Your task to perform on an android device: Clear the cart on ebay.com. Search for lg ultragear on ebay.com, select the first entry, and add it to the cart. Image 0: 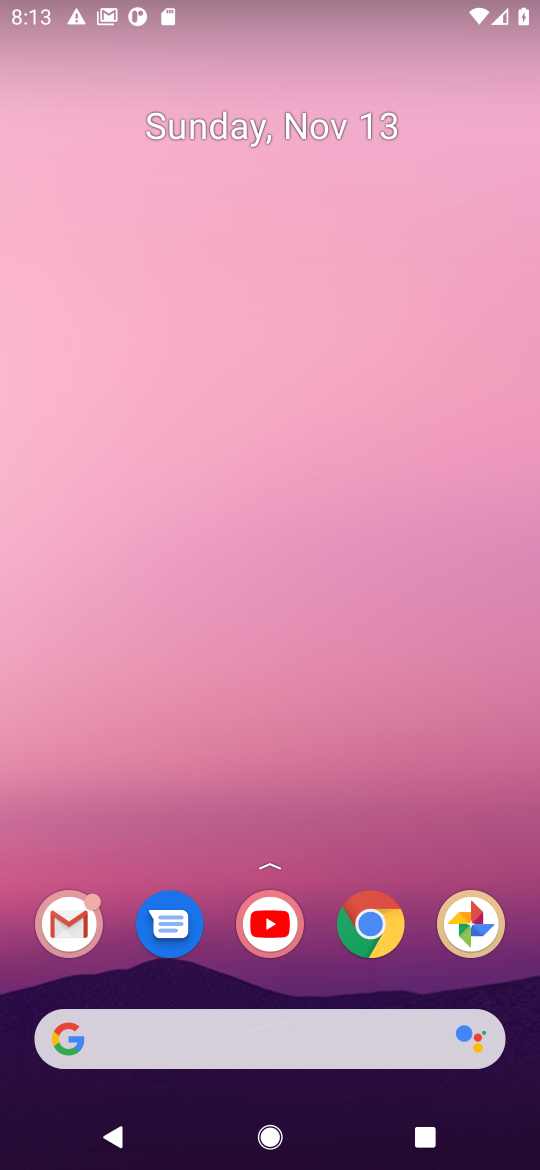
Step 0: click (369, 933)
Your task to perform on an android device: Clear the cart on ebay.com. Search for lg ultragear on ebay.com, select the first entry, and add it to the cart. Image 1: 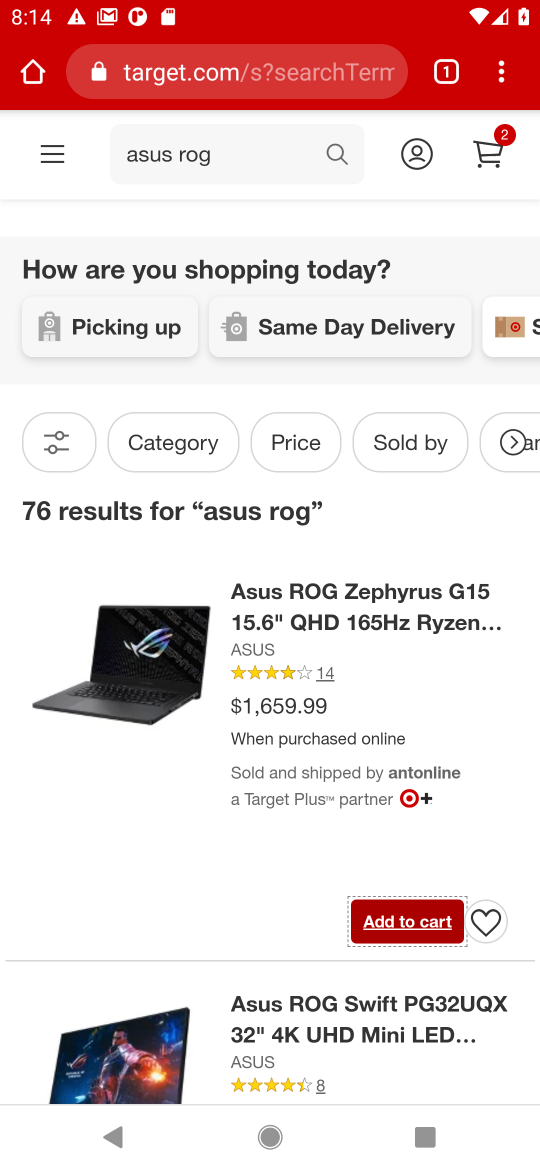
Step 1: click (214, 73)
Your task to perform on an android device: Clear the cart on ebay.com. Search for lg ultragear on ebay.com, select the first entry, and add it to the cart. Image 2: 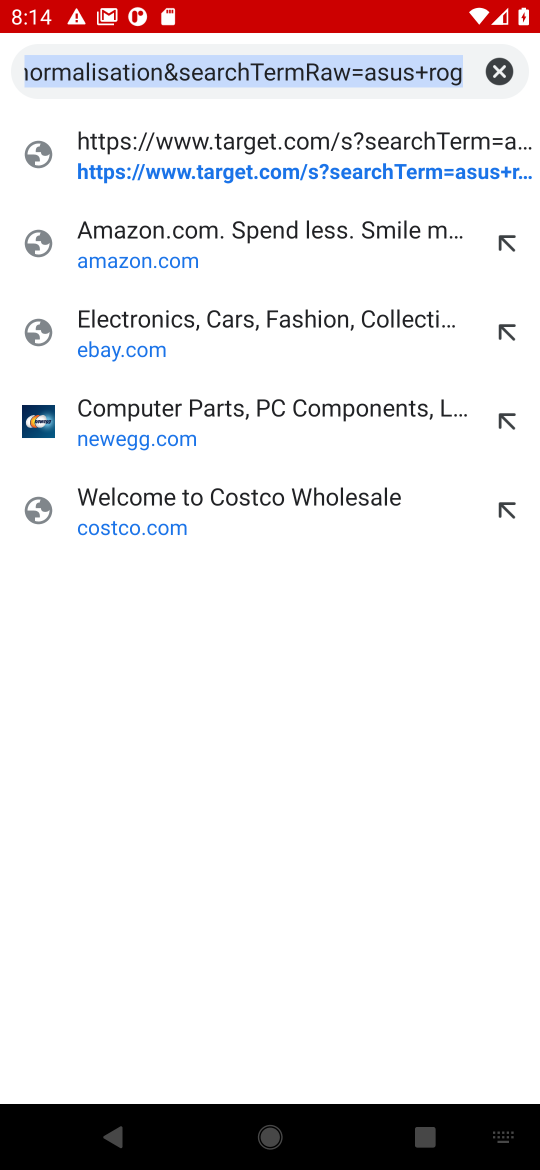
Step 2: click (99, 322)
Your task to perform on an android device: Clear the cart on ebay.com. Search for lg ultragear on ebay.com, select the first entry, and add it to the cart. Image 3: 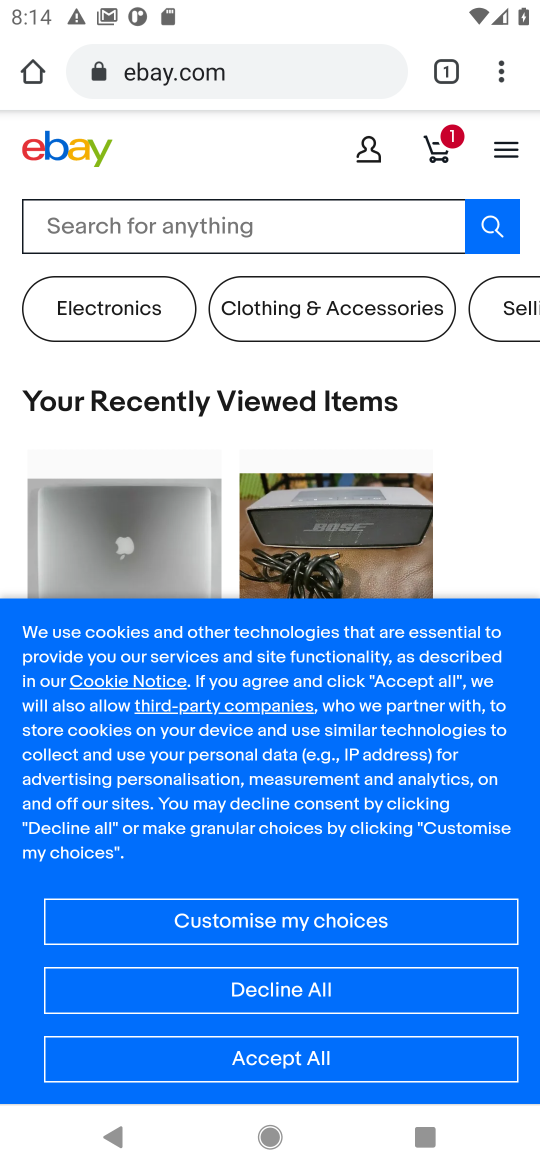
Step 3: click (438, 149)
Your task to perform on an android device: Clear the cart on ebay.com. Search for lg ultragear on ebay.com, select the first entry, and add it to the cart. Image 4: 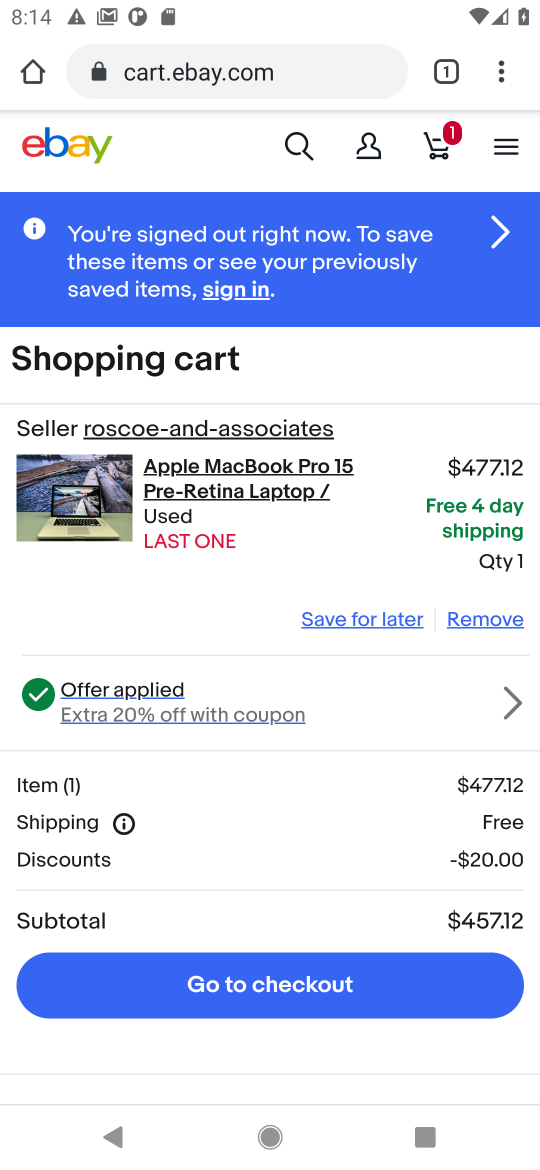
Step 4: click (477, 622)
Your task to perform on an android device: Clear the cart on ebay.com. Search for lg ultragear on ebay.com, select the first entry, and add it to the cart. Image 5: 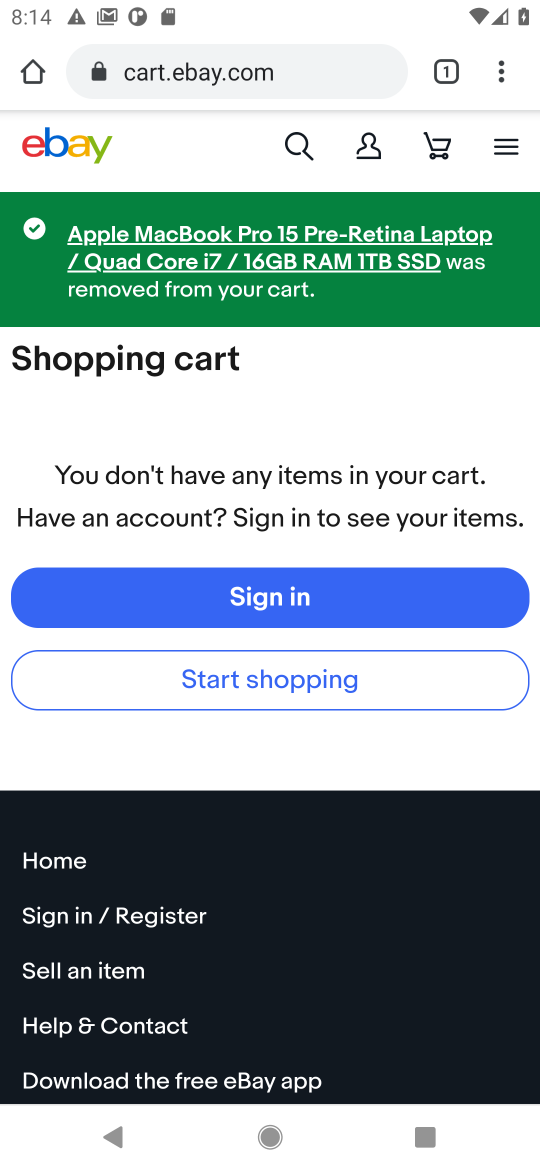
Step 5: click (303, 145)
Your task to perform on an android device: Clear the cart on ebay.com. Search for lg ultragear on ebay.com, select the first entry, and add it to the cart. Image 6: 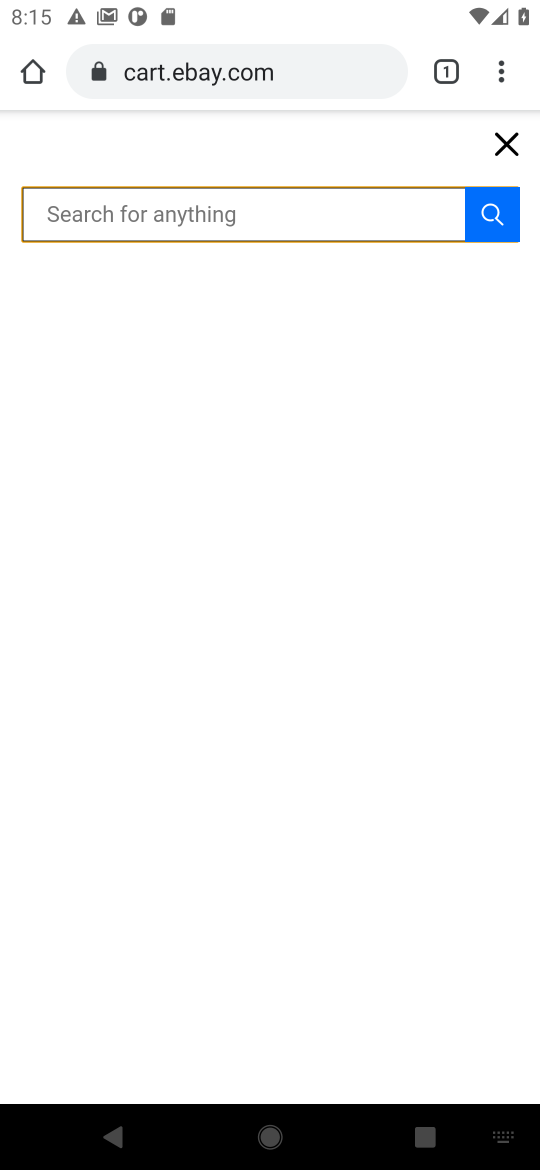
Step 6: type "lg ultragear"
Your task to perform on an android device: Clear the cart on ebay.com. Search for lg ultragear on ebay.com, select the first entry, and add it to the cart. Image 7: 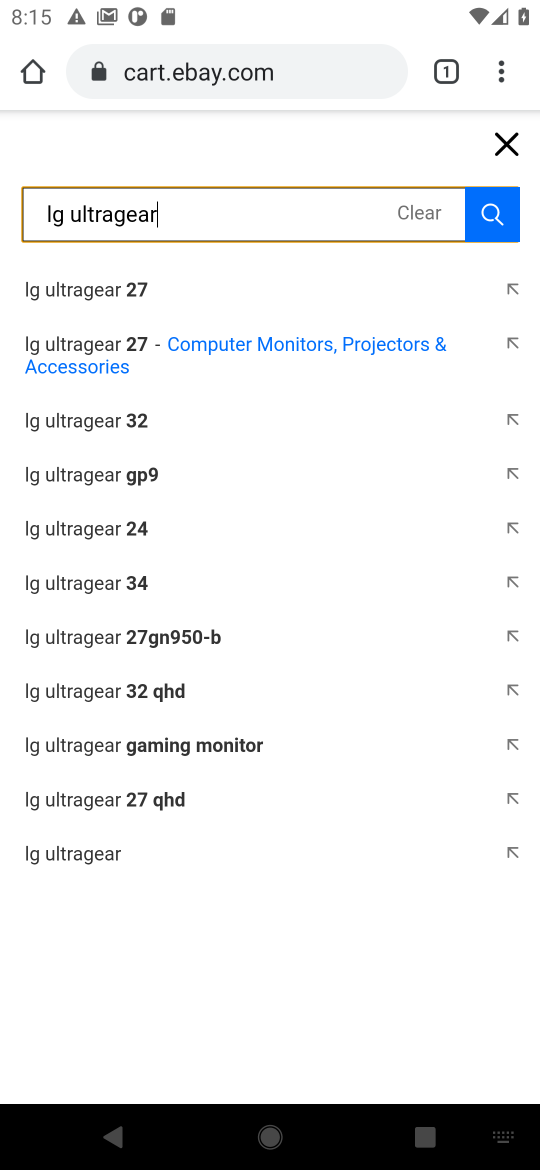
Step 7: click (70, 865)
Your task to perform on an android device: Clear the cart on ebay.com. Search for lg ultragear on ebay.com, select the first entry, and add it to the cart. Image 8: 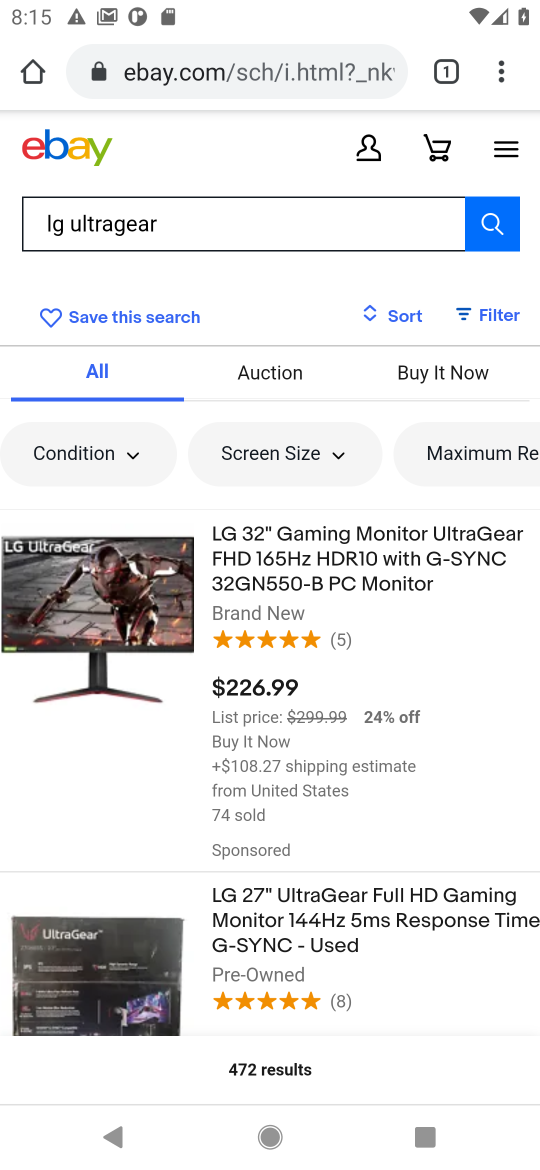
Step 8: click (97, 578)
Your task to perform on an android device: Clear the cart on ebay.com. Search for lg ultragear on ebay.com, select the first entry, and add it to the cart. Image 9: 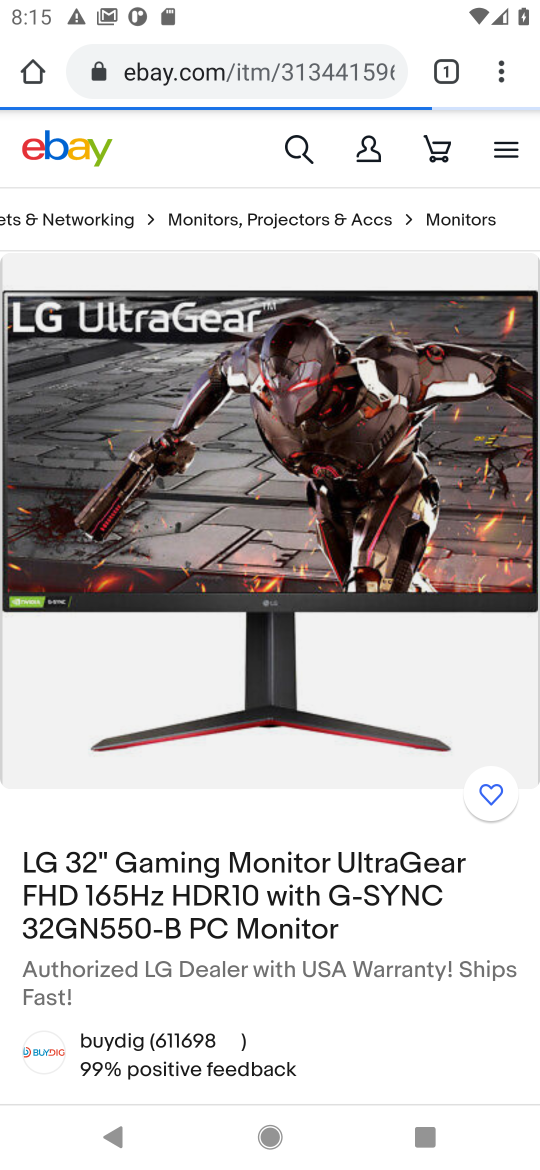
Step 9: drag from (227, 731) to (243, 433)
Your task to perform on an android device: Clear the cart on ebay.com. Search for lg ultragear on ebay.com, select the first entry, and add it to the cart. Image 10: 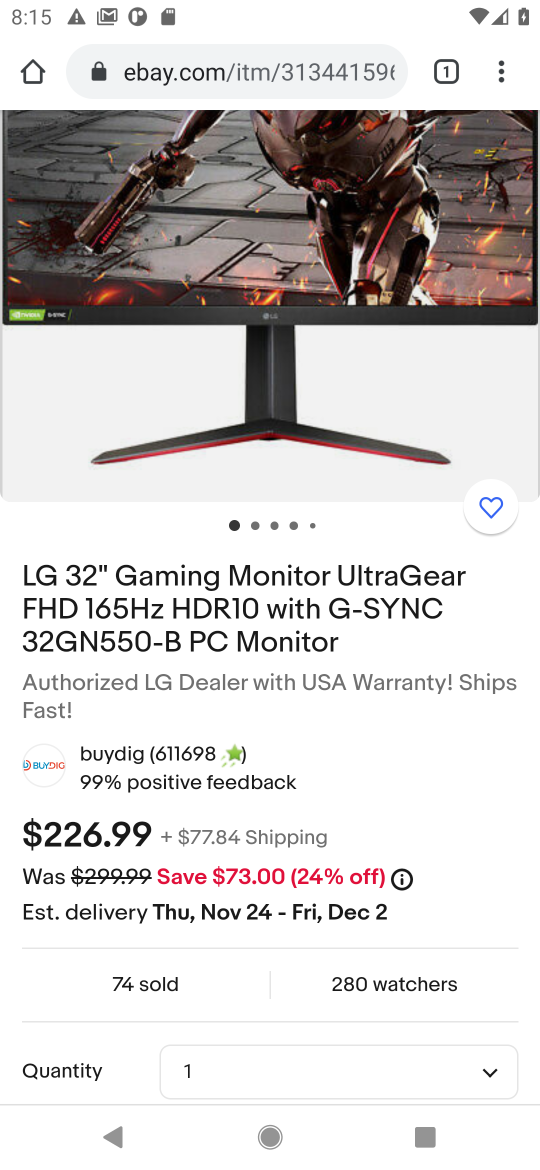
Step 10: drag from (293, 936) to (232, 375)
Your task to perform on an android device: Clear the cart on ebay.com. Search for lg ultragear on ebay.com, select the first entry, and add it to the cart. Image 11: 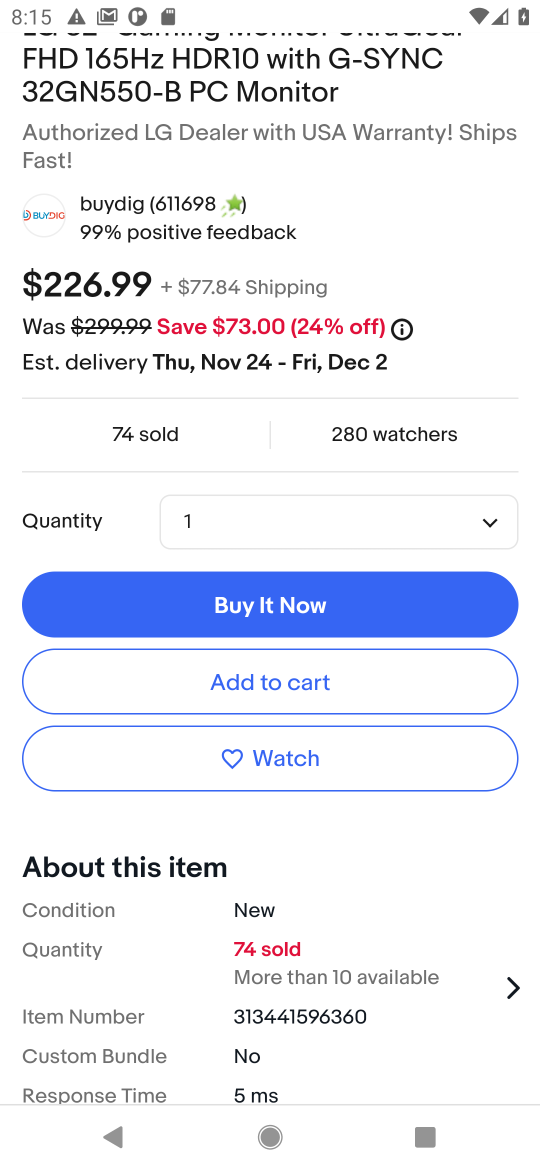
Step 11: click (195, 681)
Your task to perform on an android device: Clear the cart on ebay.com. Search for lg ultragear on ebay.com, select the first entry, and add it to the cart. Image 12: 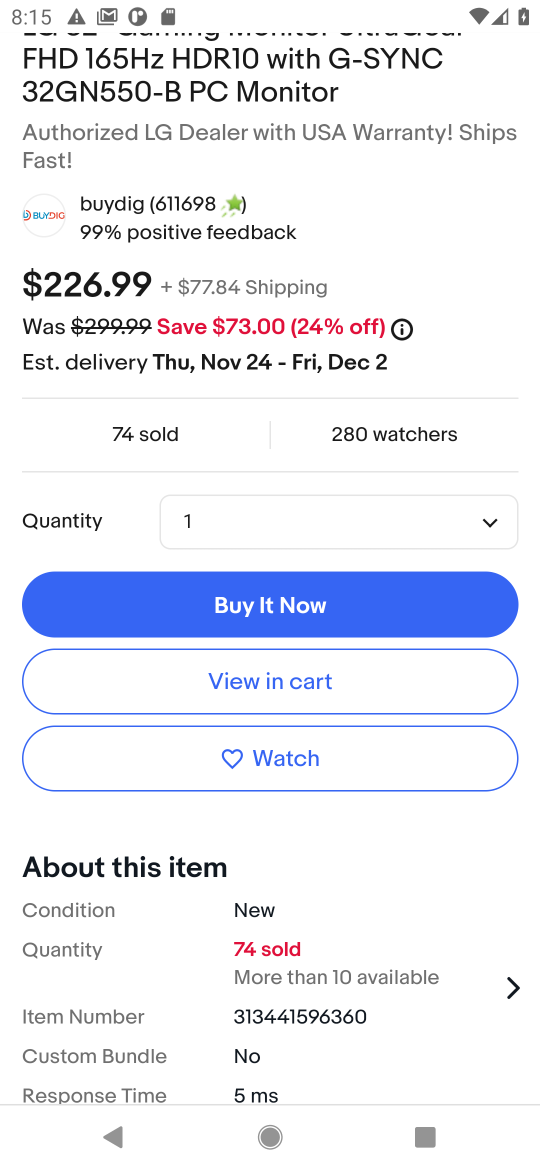
Step 12: task complete